Your task to perform on an android device: Open calendar and show me the second week of next month Image 0: 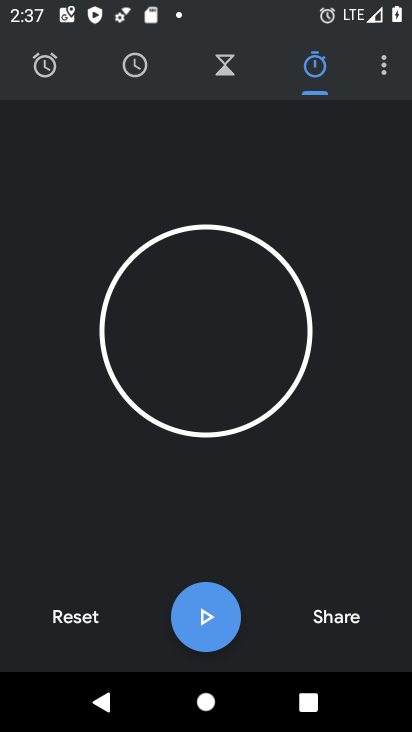
Step 0: press back button
Your task to perform on an android device: Open calendar and show me the second week of next month Image 1: 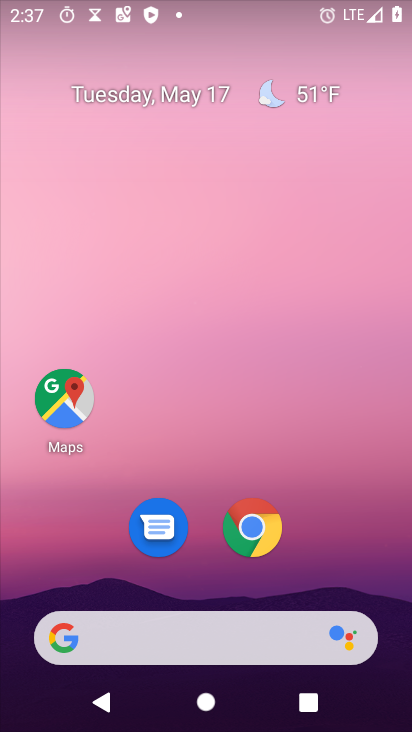
Step 1: drag from (346, 558) to (269, 269)
Your task to perform on an android device: Open calendar and show me the second week of next month Image 2: 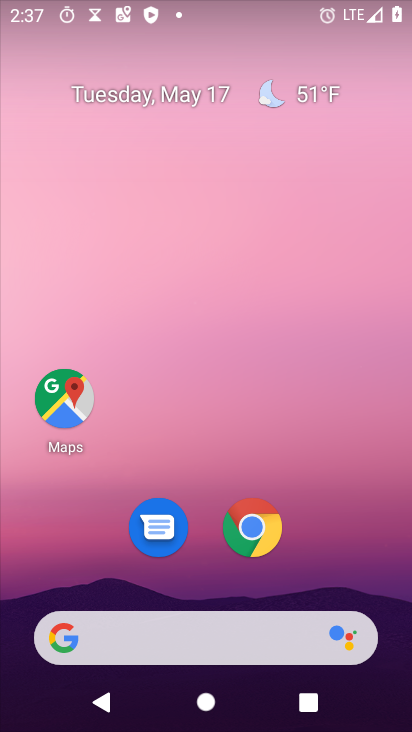
Step 2: drag from (330, 536) to (289, 55)
Your task to perform on an android device: Open calendar and show me the second week of next month Image 3: 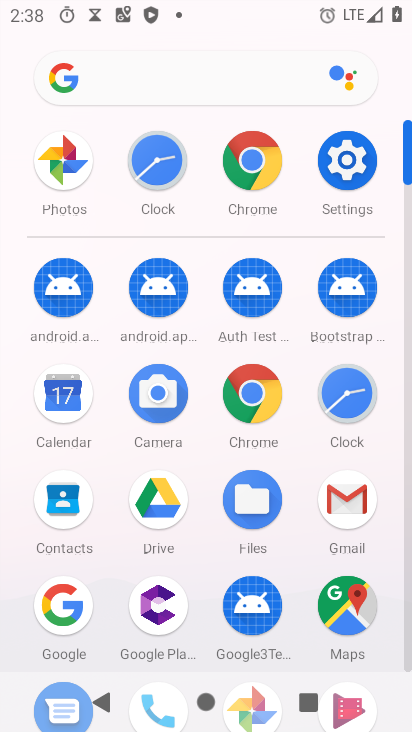
Step 3: click (64, 394)
Your task to perform on an android device: Open calendar and show me the second week of next month Image 4: 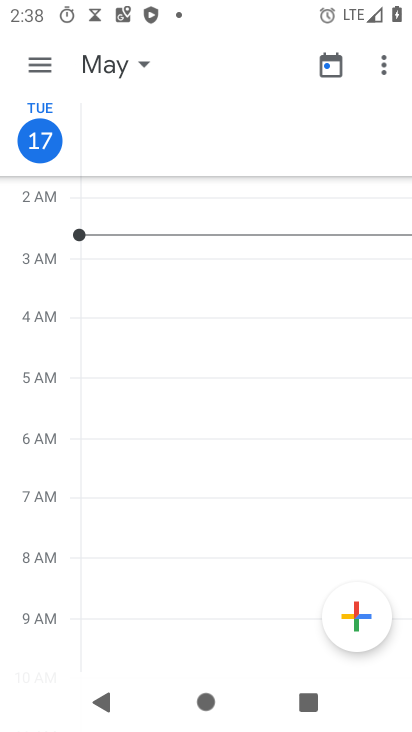
Step 4: click (144, 64)
Your task to perform on an android device: Open calendar and show me the second week of next month Image 5: 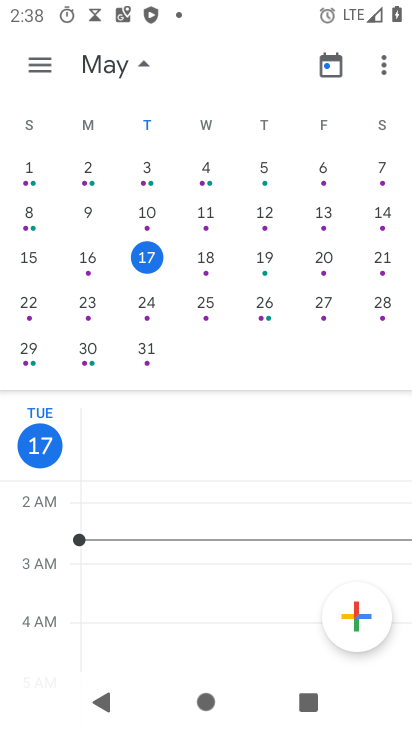
Step 5: click (332, 64)
Your task to perform on an android device: Open calendar and show me the second week of next month Image 6: 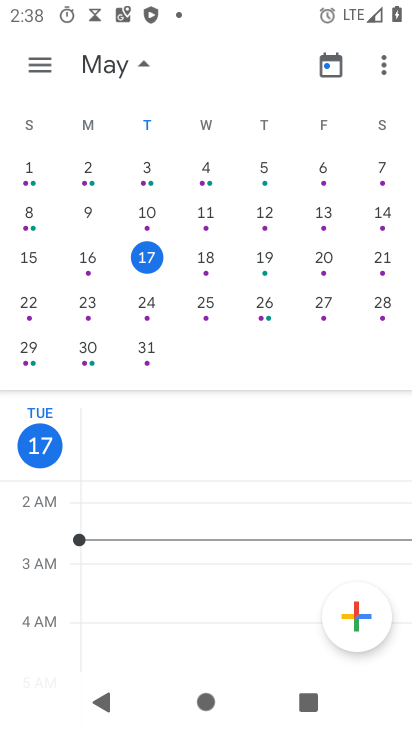
Step 6: drag from (362, 260) to (0, 220)
Your task to perform on an android device: Open calendar and show me the second week of next month Image 7: 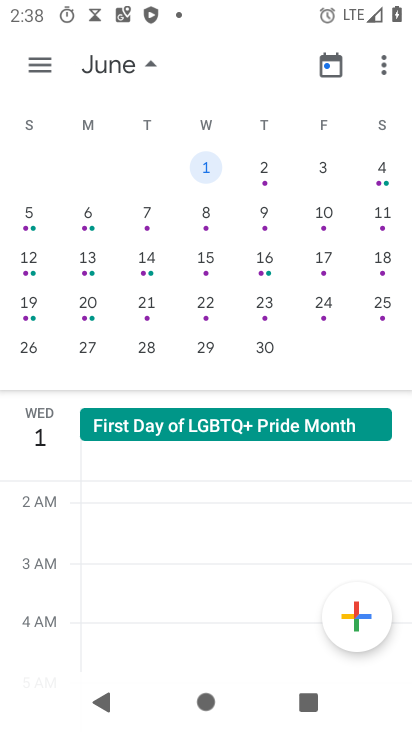
Step 7: click (90, 253)
Your task to perform on an android device: Open calendar and show me the second week of next month Image 8: 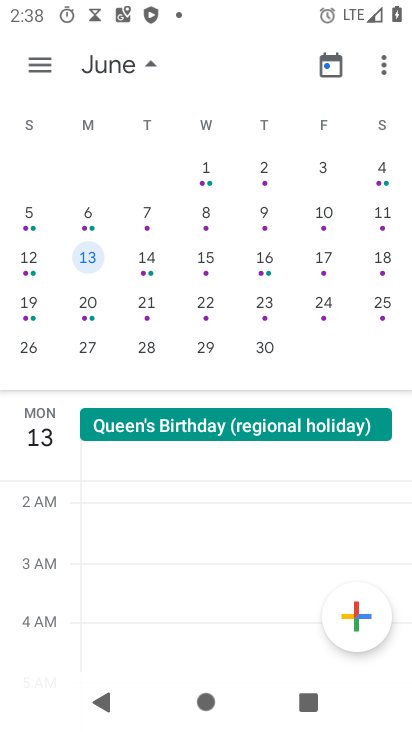
Step 8: click (30, 63)
Your task to perform on an android device: Open calendar and show me the second week of next month Image 9: 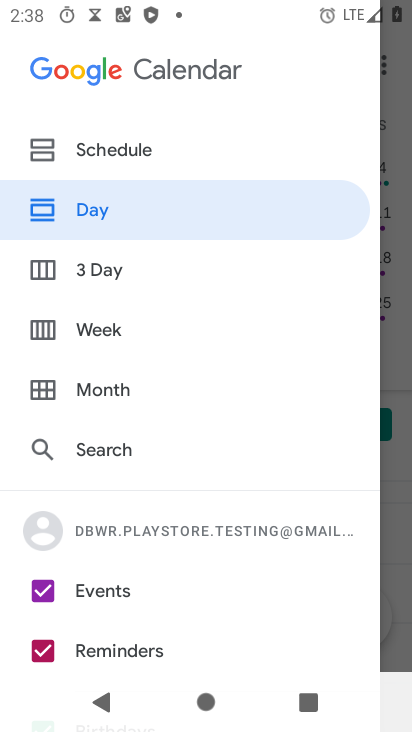
Step 9: click (88, 319)
Your task to perform on an android device: Open calendar and show me the second week of next month Image 10: 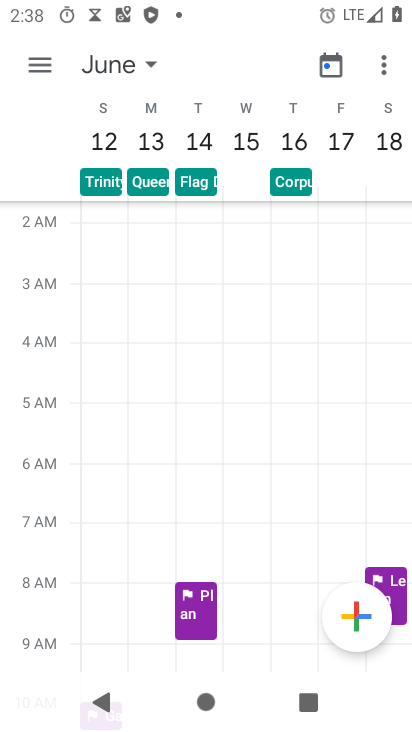
Step 10: task complete